Your task to perform on an android device: open a bookmark in the chrome app Image 0: 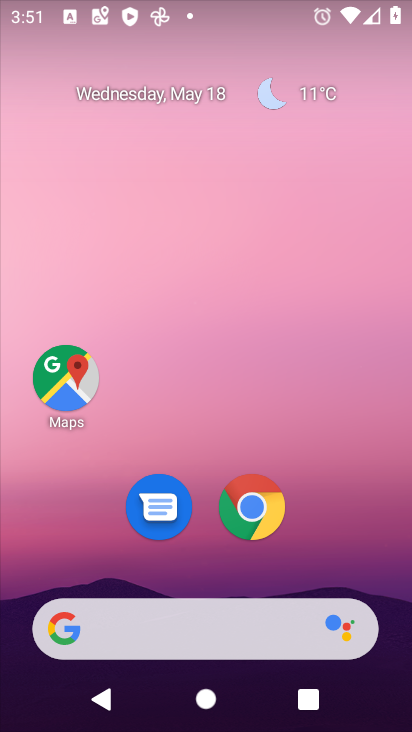
Step 0: click (251, 513)
Your task to perform on an android device: open a bookmark in the chrome app Image 1: 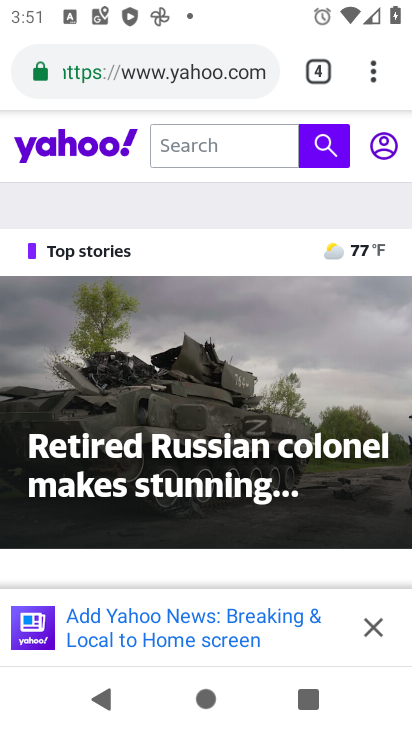
Step 1: click (371, 74)
Your task to perform on an android device: open a bookmark in the chrome app Image 2: 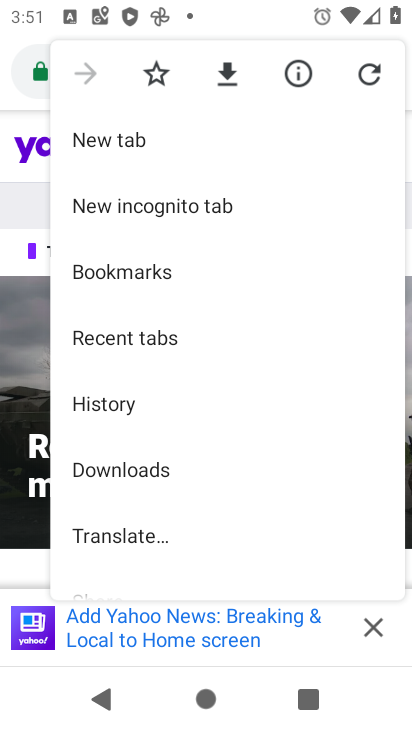
Step 2: click (122, 278)
Your task to perform on an android device: open a bookmark in the chrome app Image 3: 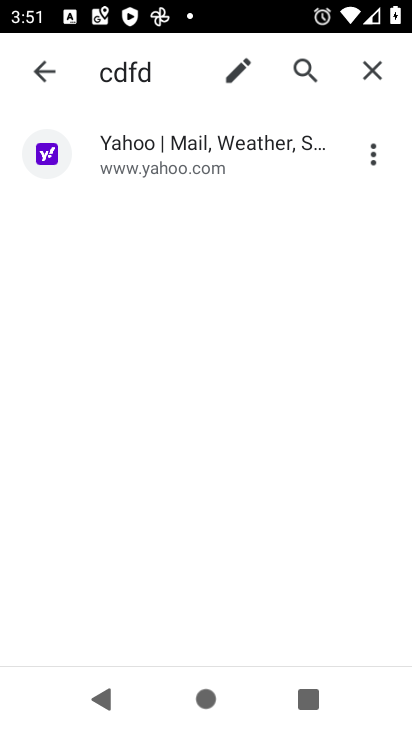
Step 3: task complete